Your task to perform on an android device: Open Android settings Image 0: 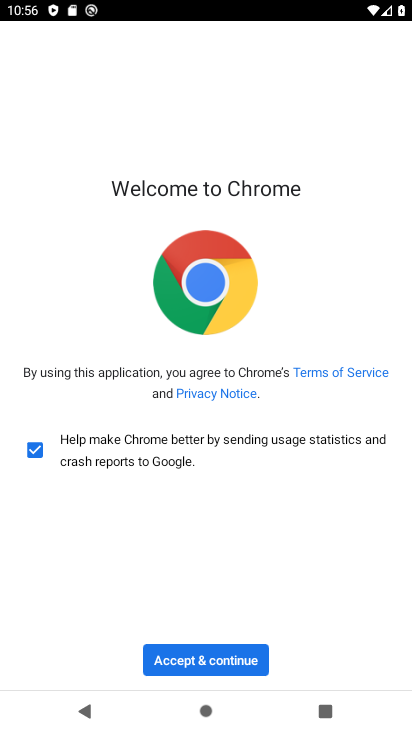
Step 0: click (240, 659)
Your task to perform on an android device: Open Android settings Image 1: 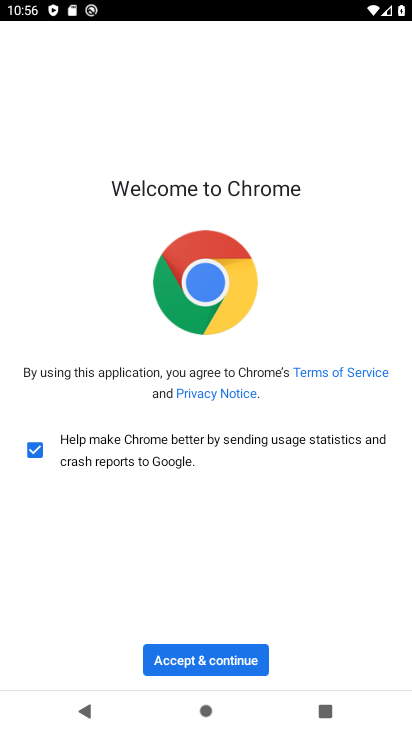
Step 1: click (240, 659)
Your task to perform on an android device: Open Android settings Image 2: 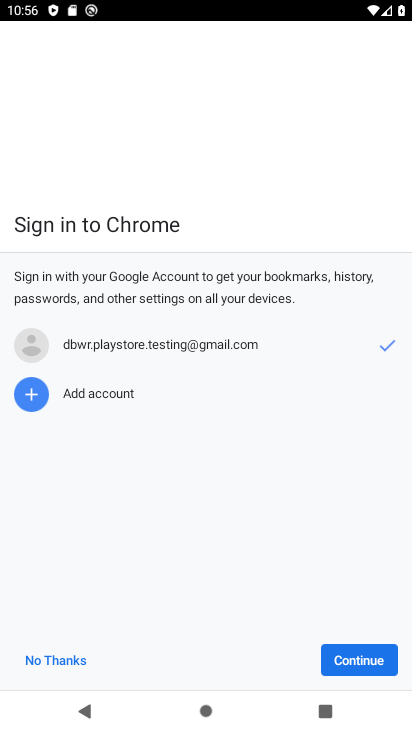
Step 2: click (357, 661)
Your task to perform on an android device: Open Android settings Image 3: 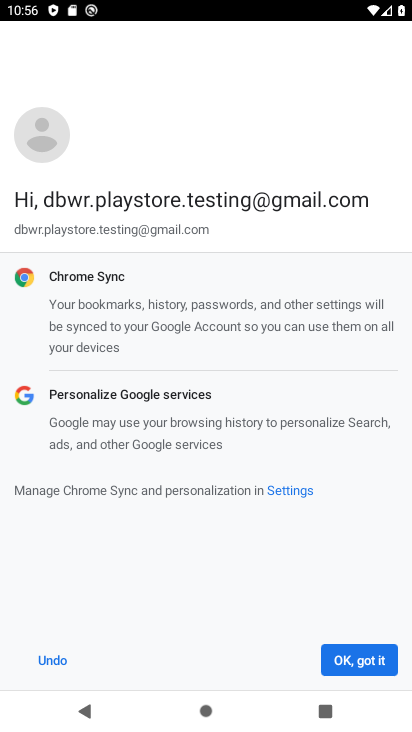
Step 3: click (359, 663)
Your task to perform on an android device: Open Android settings Image 4: 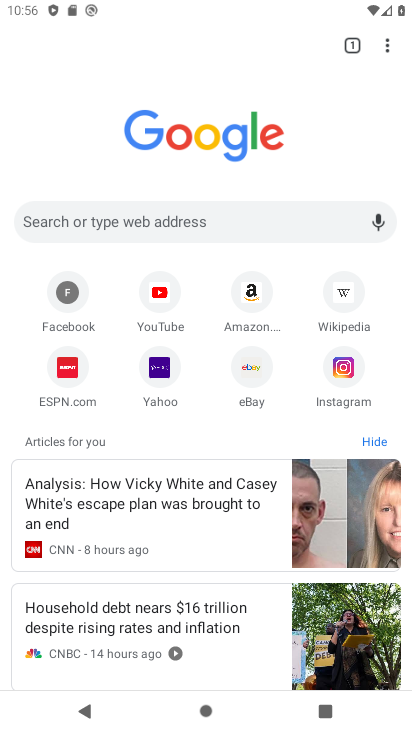
Step 4: press back button
Your task to perform on an android device: Open Android settings Image 5: 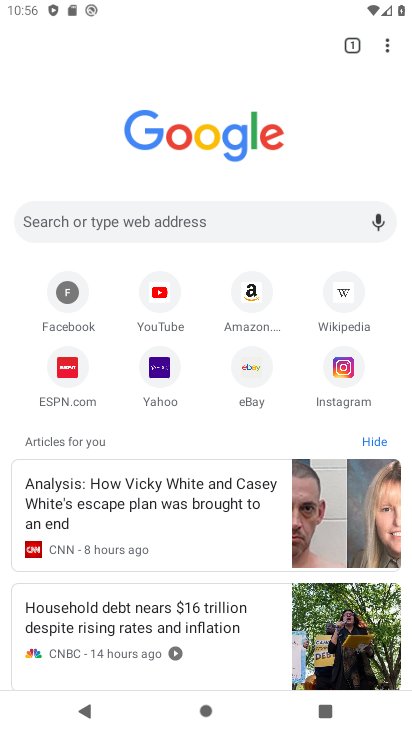
Step 5: press back button
Your task to perform on an android device: Open Android settings Image 6: 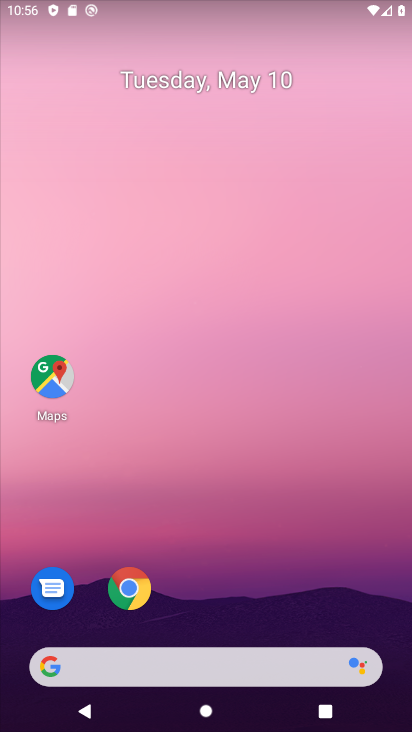
Step 6: drag from (292, 643) to (161, 138)
Your task to perform on an android device: Open Android settings Image 7: 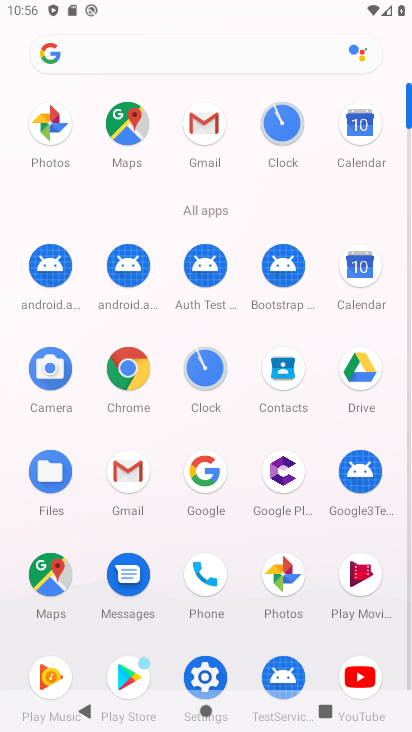
Step 7: click (205, 674)
Your task to perform on an android device: Open Android settings Image 8: 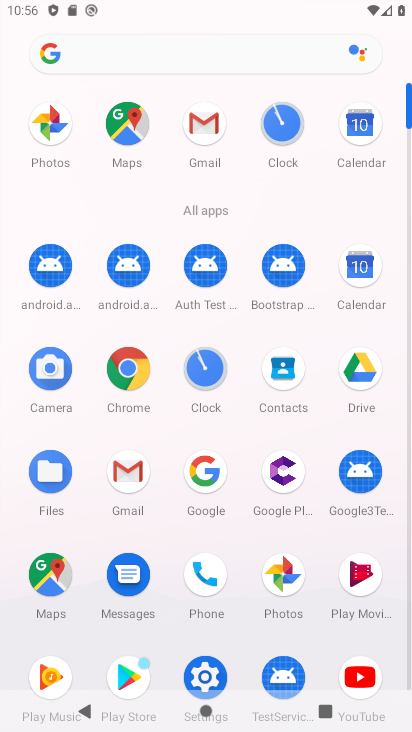
Step 8: click (205, 674)
Your task to perform on an android device: Open Android settings Image 9: 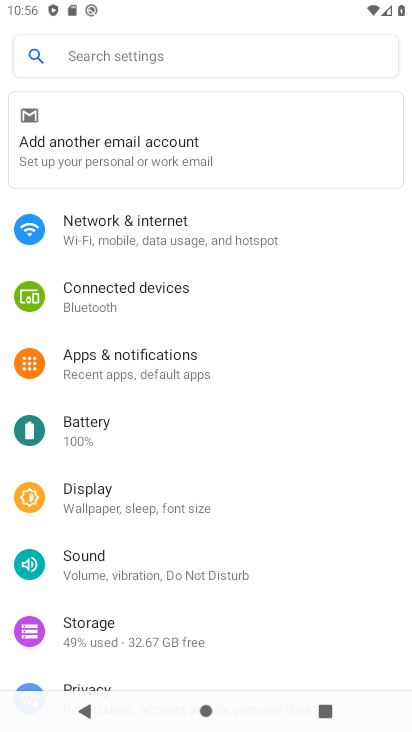
Step 9: drag from (160, 485) to (115, 155)
Your task to perform on an android device: Open Android settings Image 10: 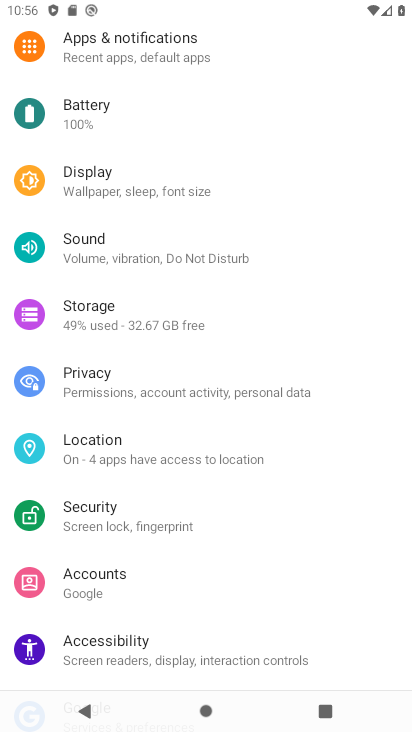
Step 10: drag from (137, 565) to (71, 186)
Your task to perform on an android device: Open Android settings Image 11: 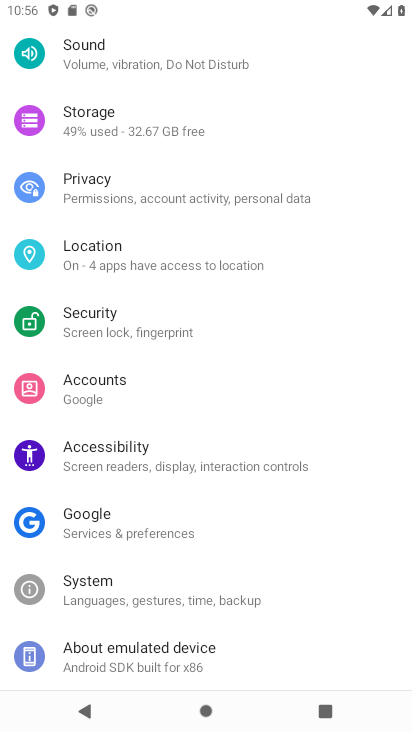
Step 11: click (113, 665)
Your task to perform on an android device: Open Android settings Image 12: 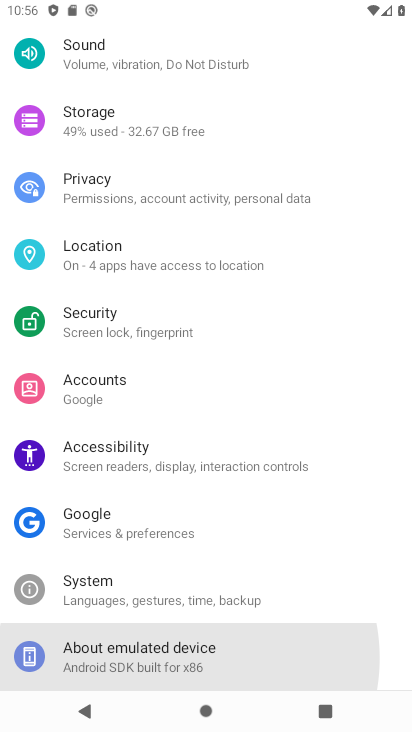
Step 12: click (113, 664)
Your task to perform on an android device: Open Android settings Image 13: 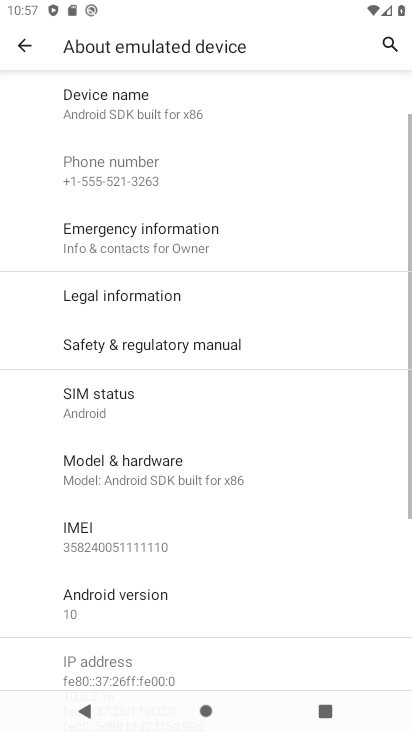
Step 13: task complete